Your task to perform on an android device: turn off wifi Image 0: 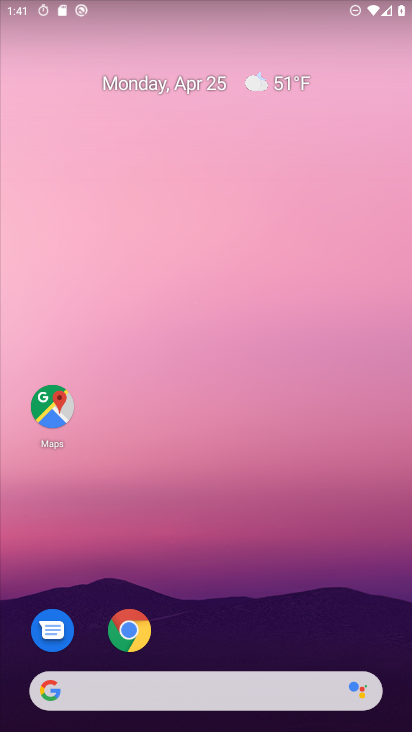
Step 0: drag from (193, 624) to (231, 243)
Your task to perform on an android device: turn off wifi Image 1: 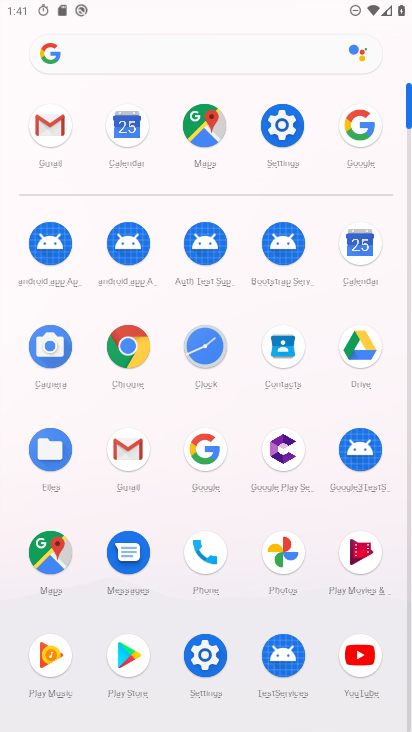
Step 1: click (201, 649)
Your task to perform on an android device: turn off wifi Image 2: 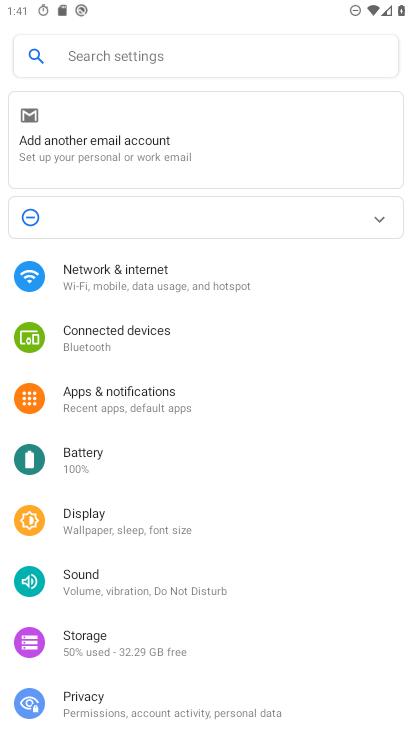
Step 2: click (186, 281)
Your task to perform on an android device: turn off wifi Image 3: 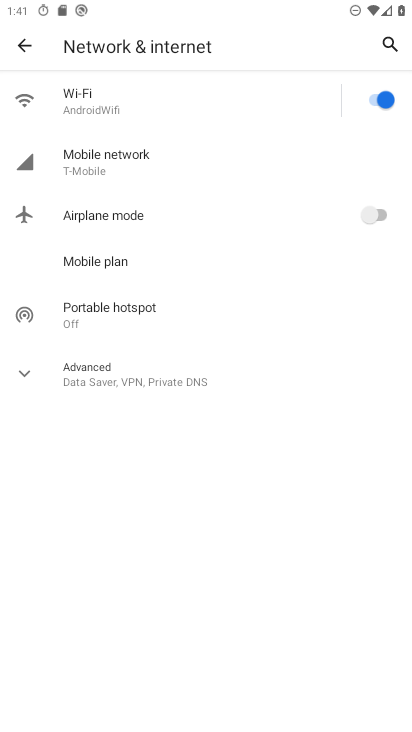
Step 3: click (180, 80)
Your task to perform on an android device: turn off wifi Image 4: 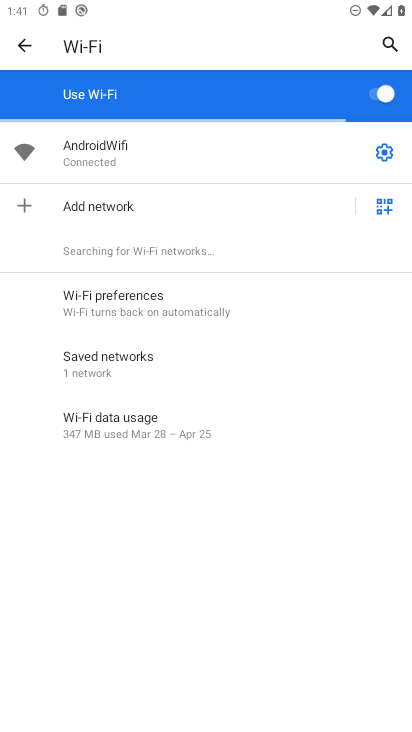
Step 4: click (378, 72)
Your task to perform on an android device: turn off wifi Image 5: 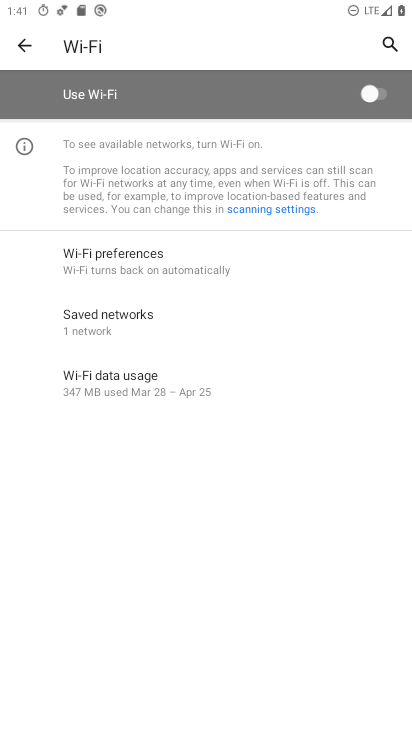
Step 5: task complete